Your task to perform on an android device: delete location history Image 0: 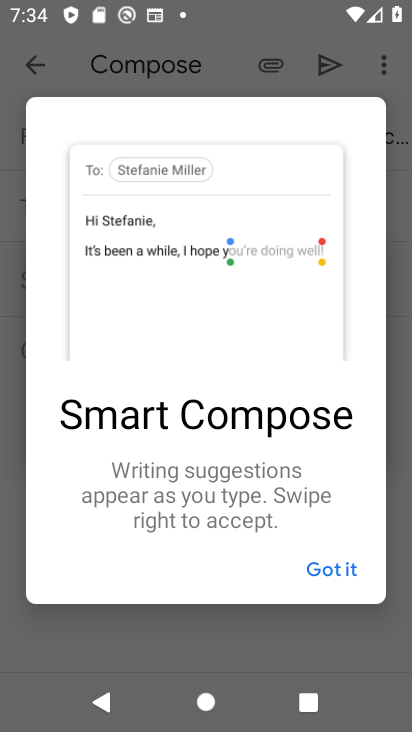
Step 0: press home button
Your task to perform on an android device: delete location history Image 1: 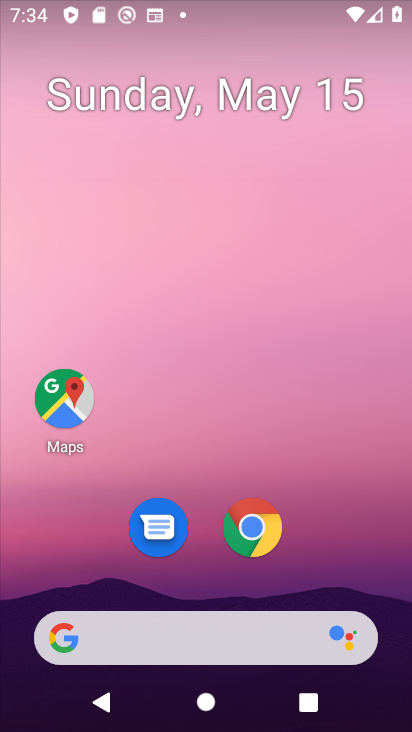
Step 1: drag from (144, 644) to (339, 194)
Your task to perform on an android device: delete location history Image 2: 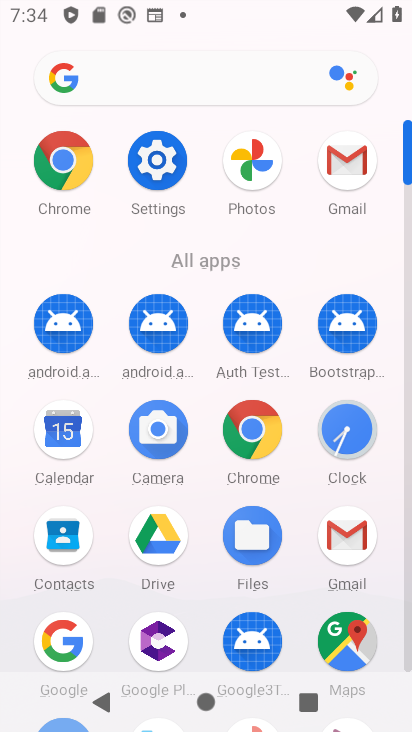
Step 2: click (349, 636)
Your task to perform on an android device: delete location history Image 3: 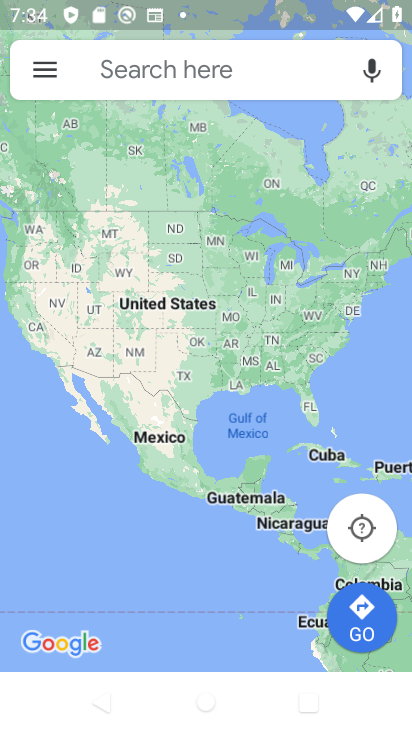
Step 3: click (40, 62)
Your task to perform on an android device: delete location history Image 4: 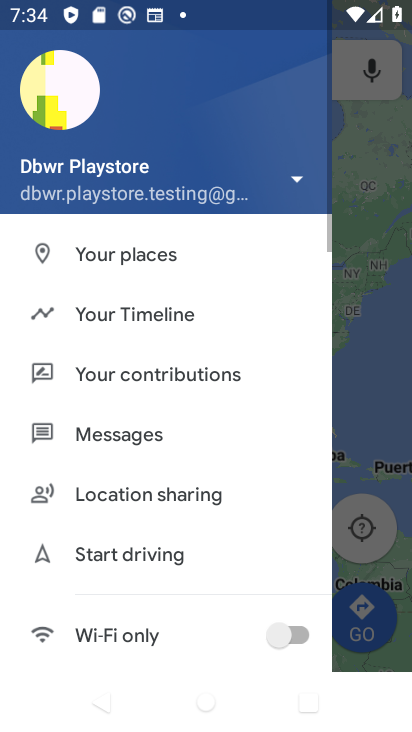
Step 4: click (131, 317)
Your task to perform on an android device: delete location history Image 5: 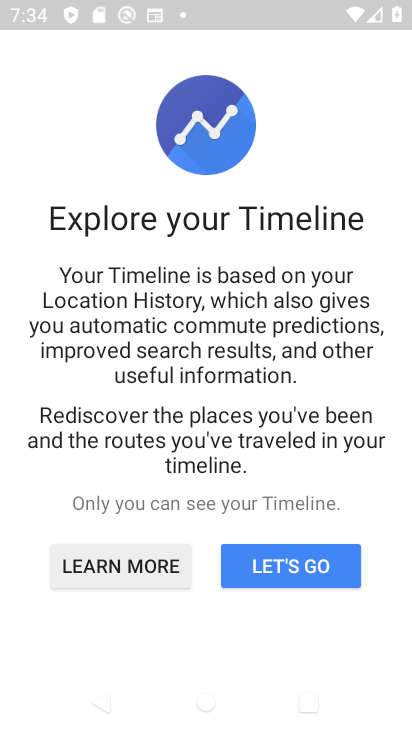
Step 5: click (260, 576)
Your task to perform on an android device: delete location history Image 6: 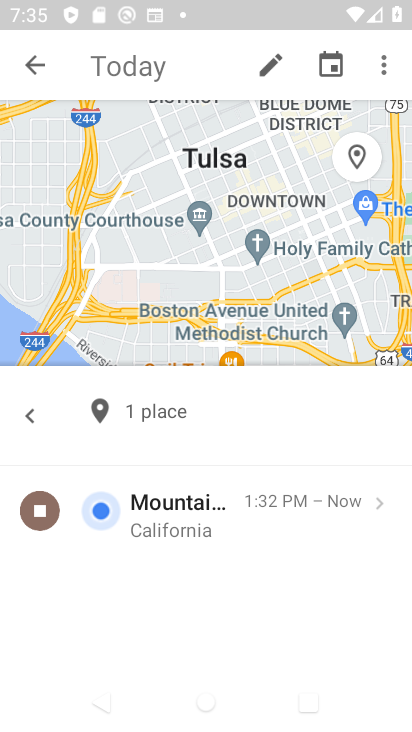
Step 6: click (386, 62)
Your task to perform on an android device: delete location history Image 7: 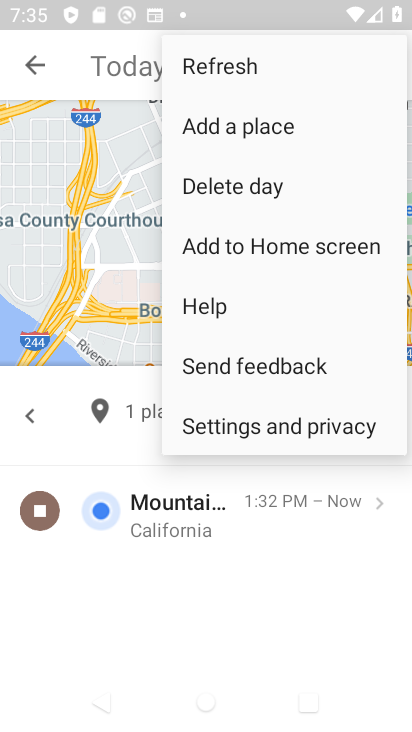
Step 7: click (259, 433)
Your task to perform on an android device: delete location history Image 8: 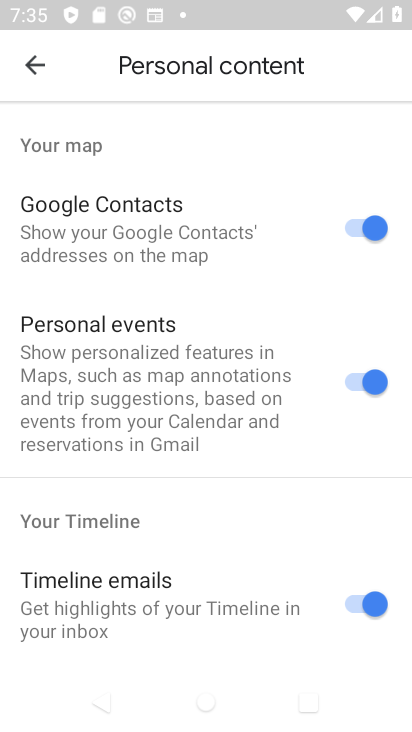
Step 8: drag from (168, 560) to (402, 61)
Your task to perform on an android device: delete location history Image 9: 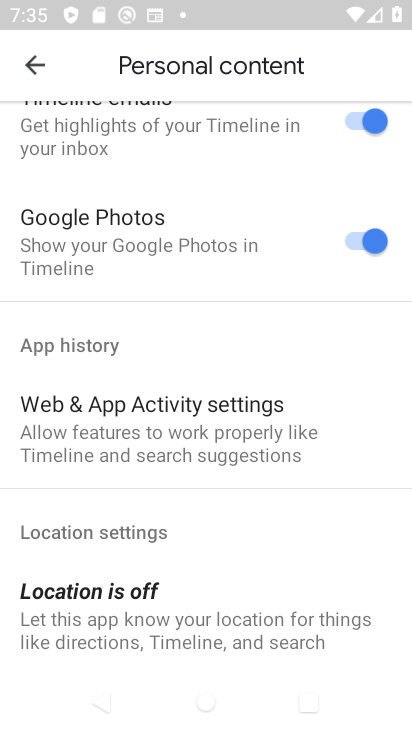
Step 9: drag from (239, 500) to (375, 184)
Your task to perform on an android device: delete location history Image 10: 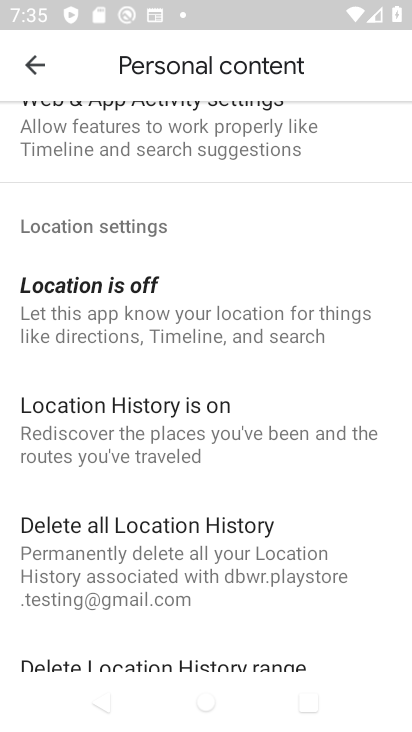
Step 10: click (178, 536)
Your task to perform on an android device: delete location history Image 11: 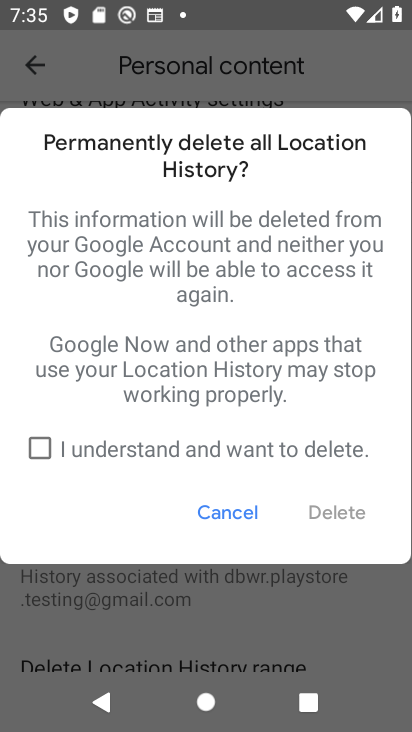
Step 11: click (33, 453)
Your task to perform on an android device: delete location history Image 12: 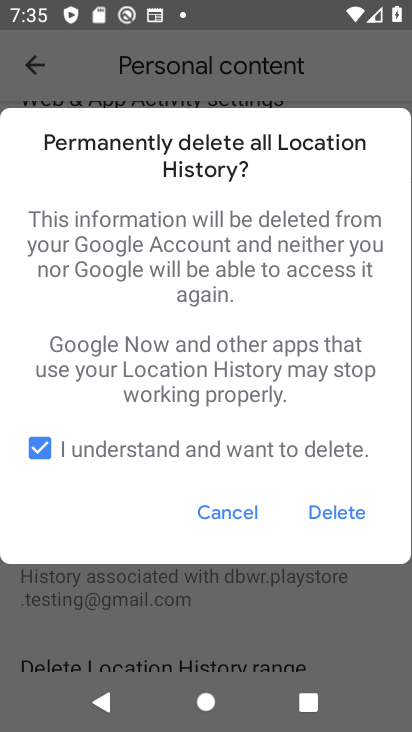
Step 12: click (329, 515)
Your task to perform on an android device: delete location history Image 13: 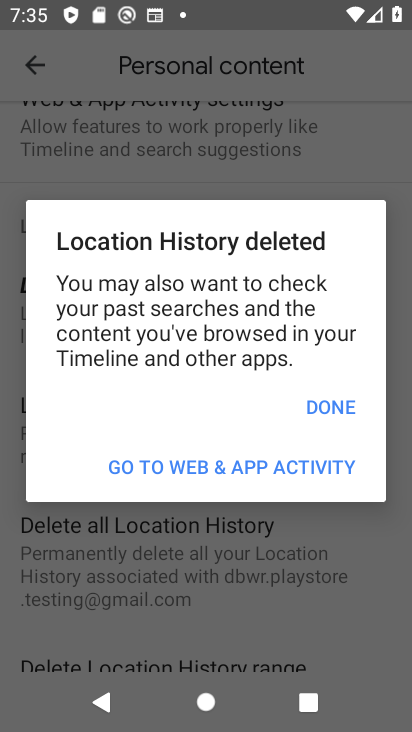
Step 13: click (341, 401)
Your task to perform on an android device: delete location history Image 14: 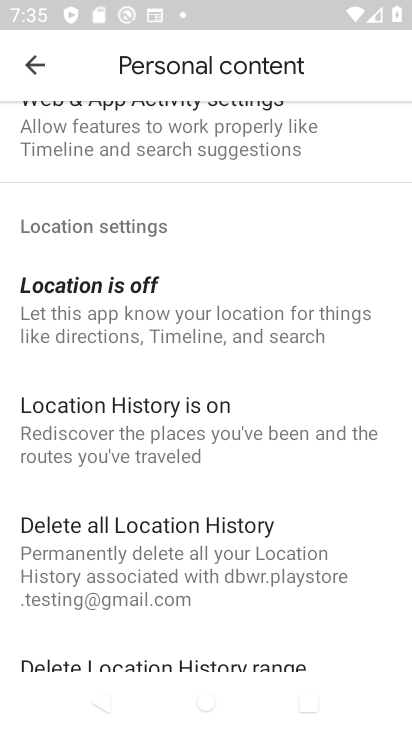
Step 14: task complete